Your task to perform on an android device: allow cookies in the chrome app Image 0: 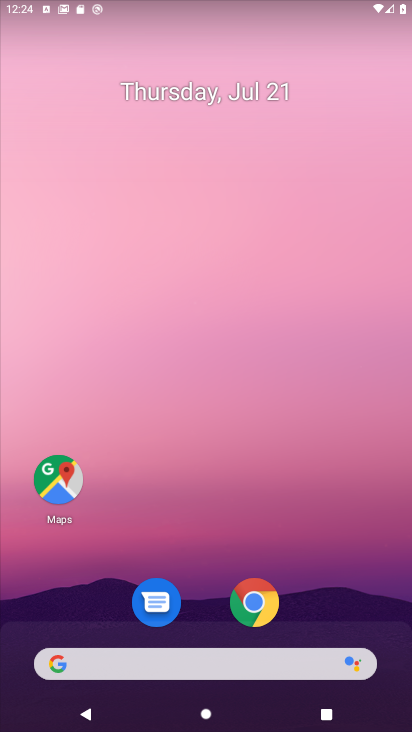
Step 0: drag from (355, 618) to (119, 30)
Your task to perform on an android device: allow cookies in the chrome app Image 1: 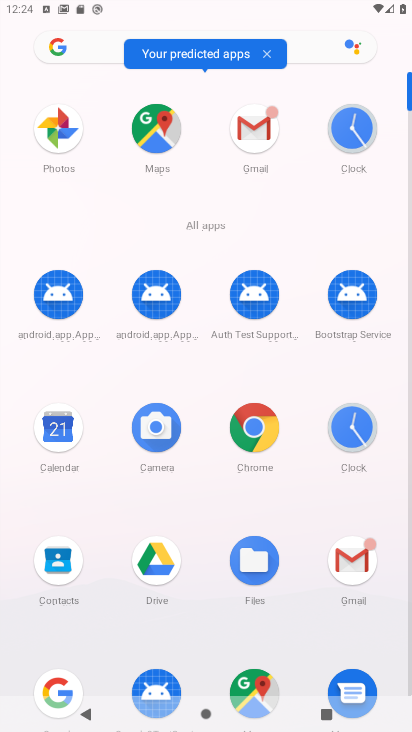
Step 1: click (257, 418)
Your task to perform on an android device: allow cookies in the chrome app Image 2: 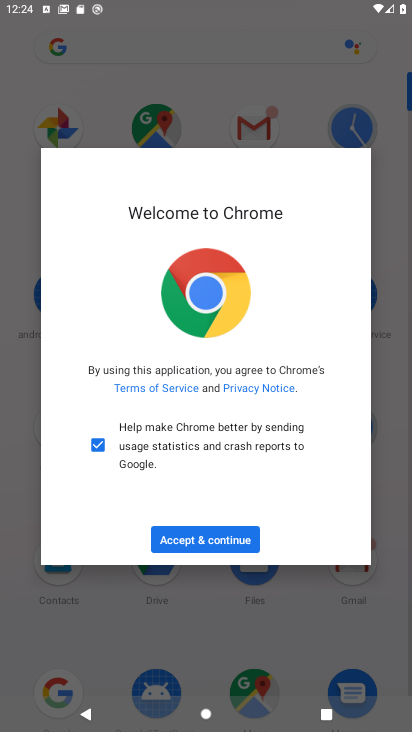
Step 2: click (202, 537)
Your task to perform on an android device: allow cookies in the chrome app Image 3: 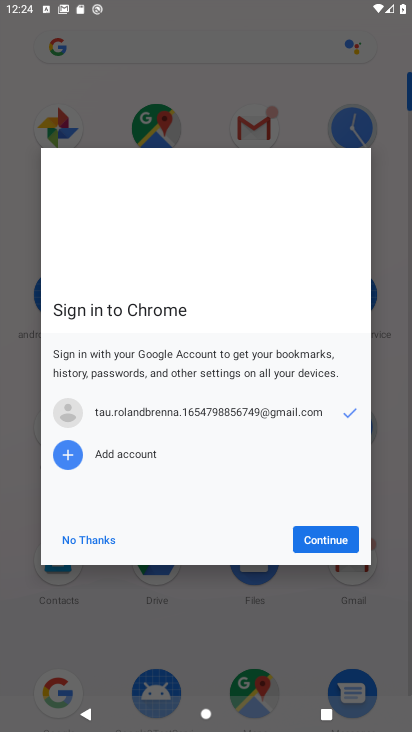
Step 3: click (312, 542)
Your task to perform on an android device: allow cookies in the chrome app Image 4: 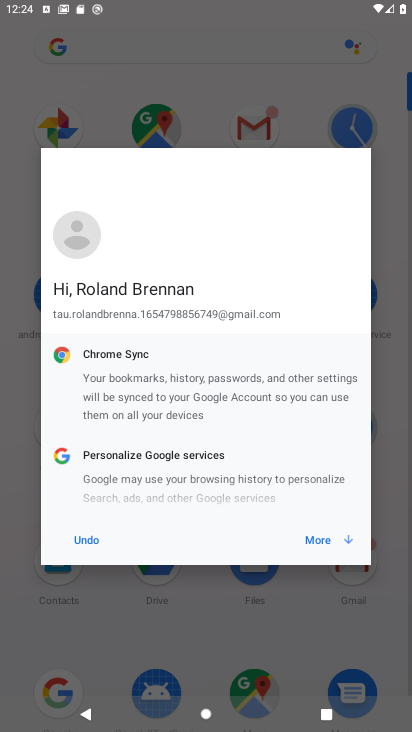
Step 4: click (320, 540)
Your task to perform on an android device: allow cookies in the chrome app Image 5: 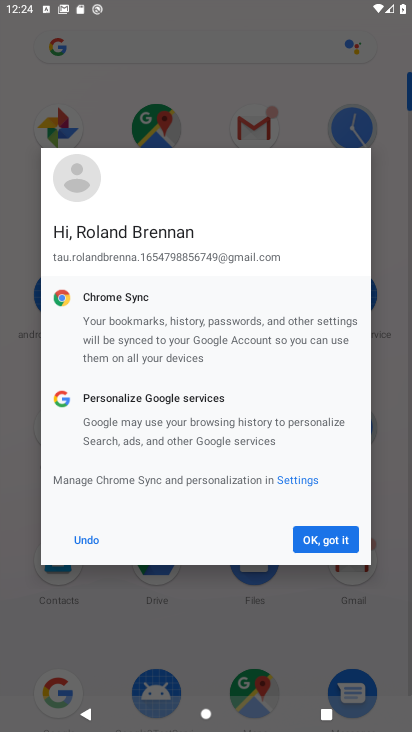
Step 5: click (320, 540)
Your task to perform on an android device: allow cookies in the chrome app Image 6: 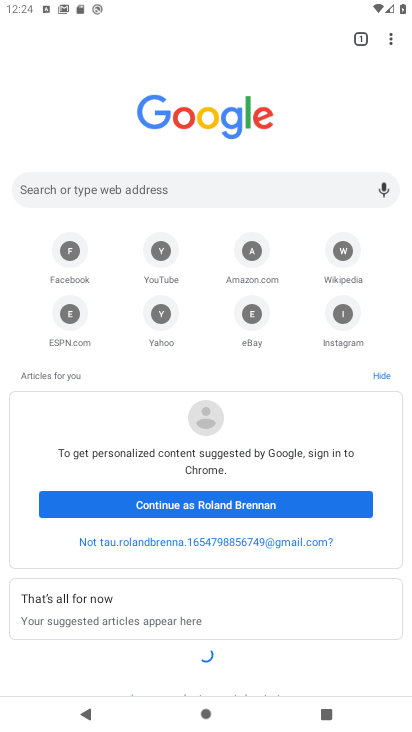
Step 6: click (387, 30)
Your task to perform on an android device: allow cookies in the chrome app Image 7: 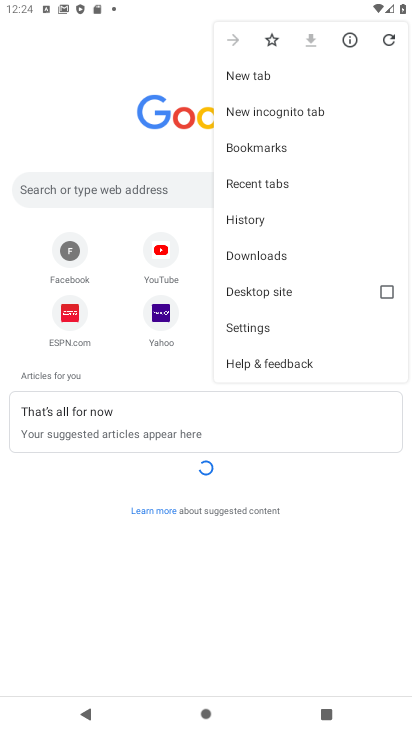
Step 7: click (257, 219)
Your task to perform on an android device: allow cookies in the chrome app Image 8: 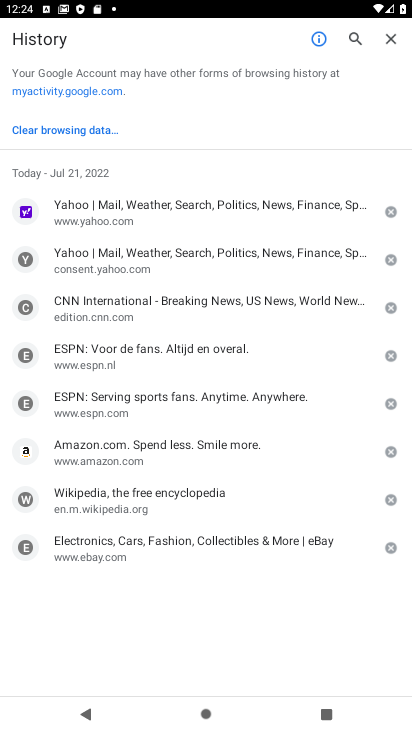
Step 8: click (75, 131)
Your task to perform on an android device: allow cookies in the chrome app Image 9: 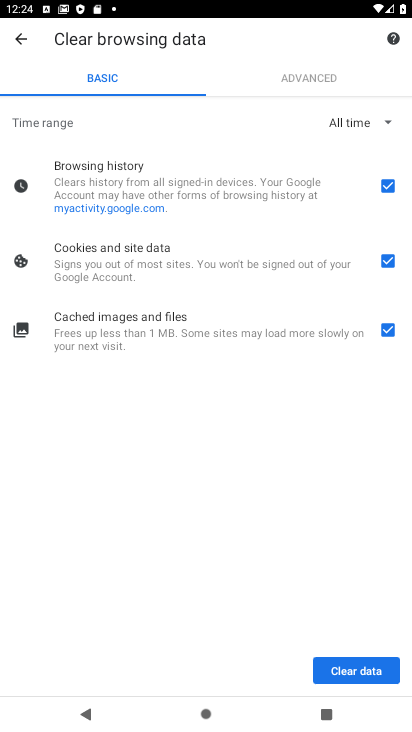
Step 9: task complete